Your task to perform on an android device: Is it going to rain this weekend? Image 0: 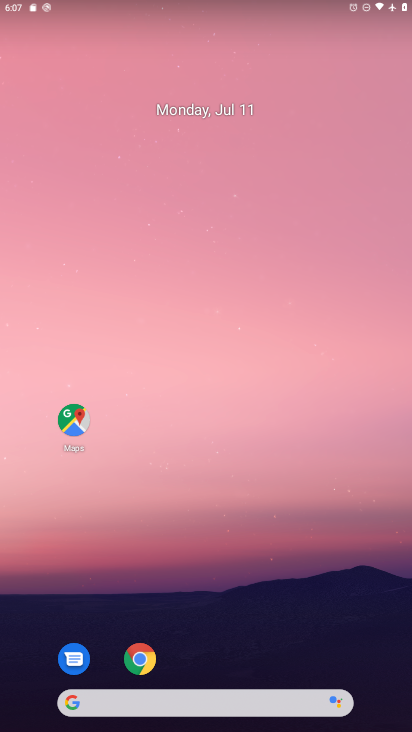
Step 0: drag from (5, 257) to (368, 271)
Your task to perform on an android device: Is it going to rain this weekend? Image 1: 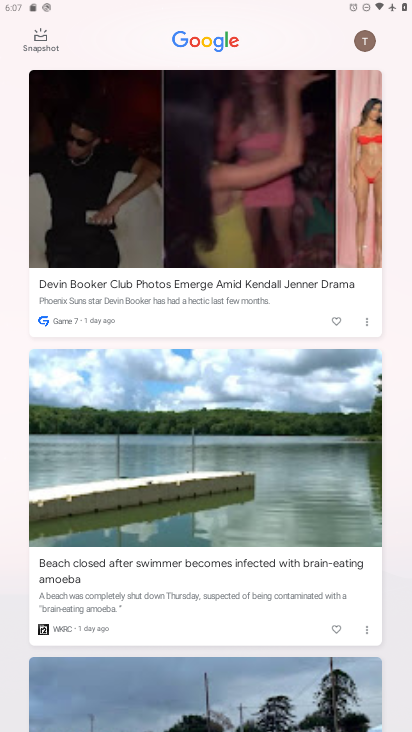
Step 1: task complete